Your task to perform on an android device: toggle location history Image 0: 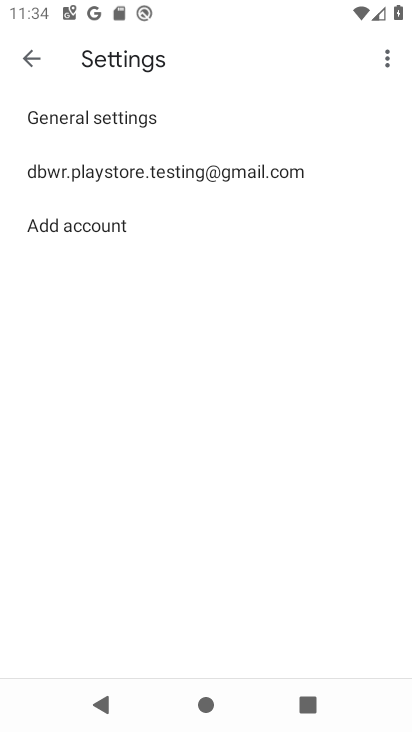
Step 0: press home button
Your task to perform on an android device: toggle location history Image 1: 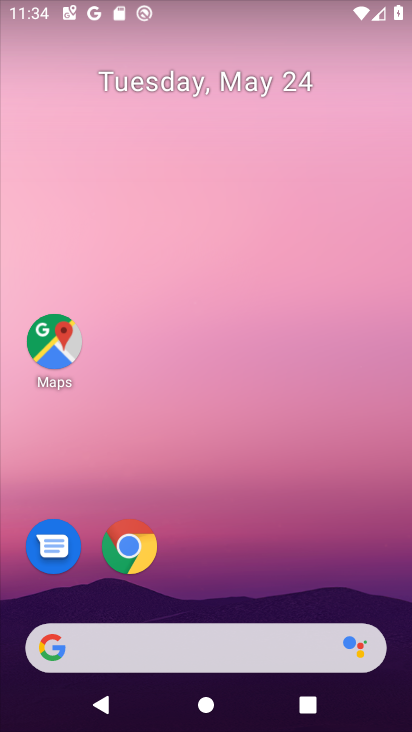
Step 1: drag from (196, 577) to (252, 15)
Your task to perform on an android device: toggle location history Image 2: 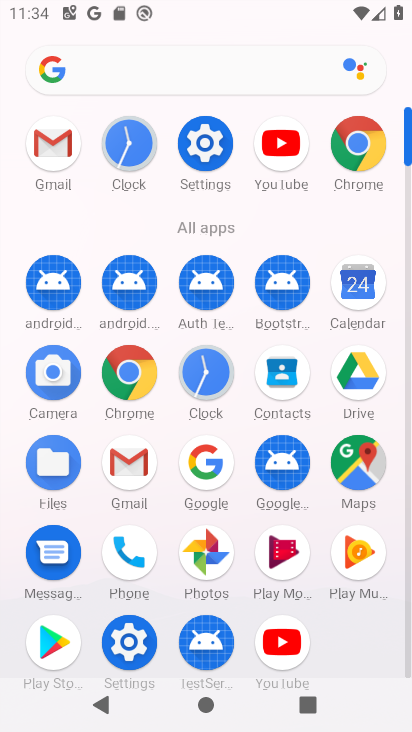
Step 2: click (129, 639)
Your task to perform on an android device: toggle location history Image 3: 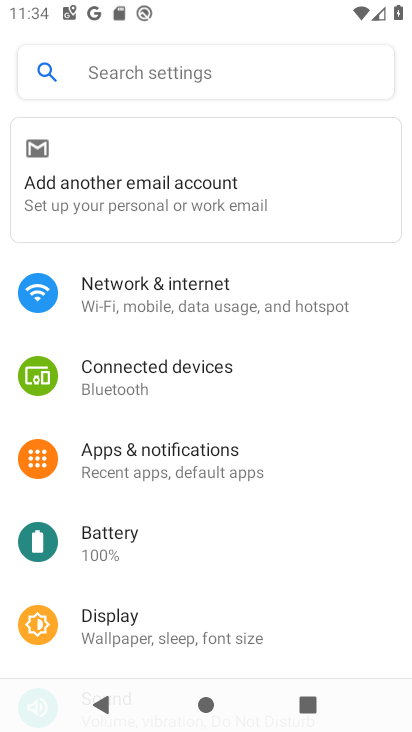
Step 3: drag from (206, 637) to (253, 244)
Your task to perform on an android device: toggle location history Image 4: 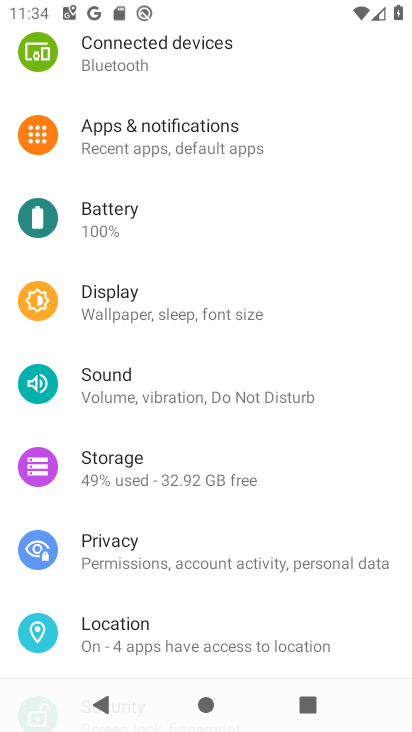
Step 4: drag from (172, 544) to (197, 396)
Your task to perform on an android device: toggle location history Image 5: 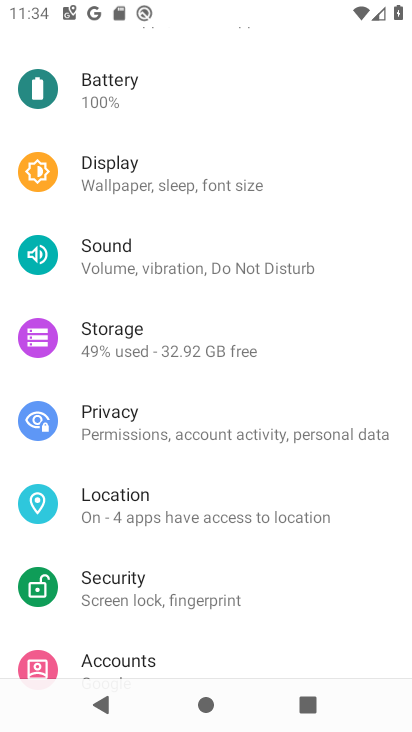
Step 5: click (189, 518)
Your task to perform on an android device: toggle location history Image 6: 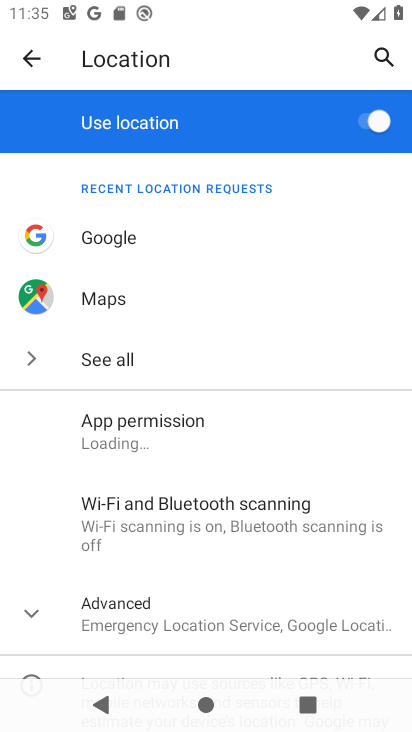
Step 6: drag from (194, 584) to (239, 394)
Your task to perform on an android device: toggle location history Image 7: 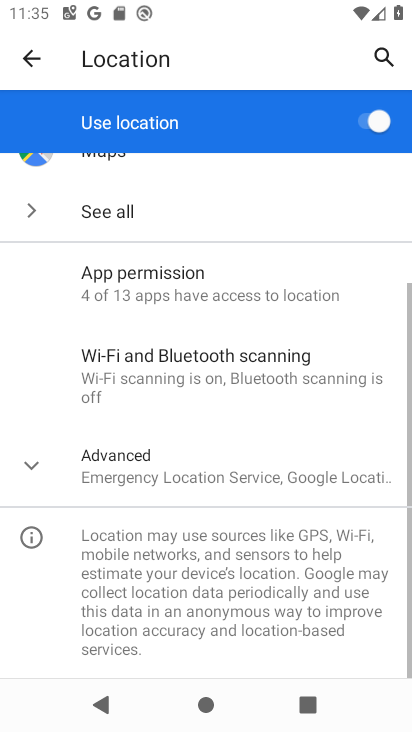
Step 7: click (207, 486)
Your task to perform on an android device: toggle location history Image 8: 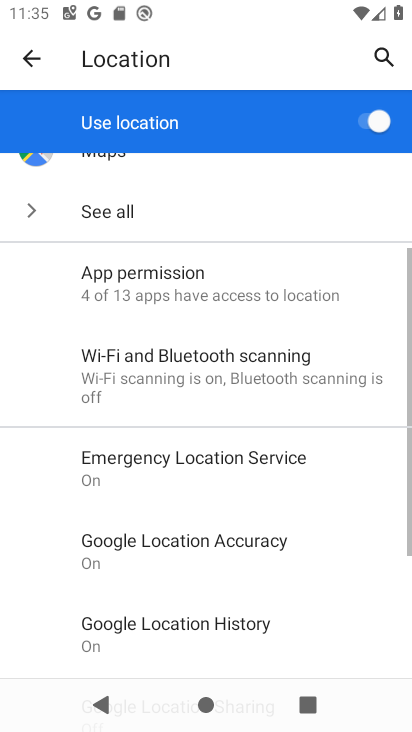
Step 8: drag from (236, 594) to (250, 425)
Your task to perform on an android device: toggle location history Image 9: 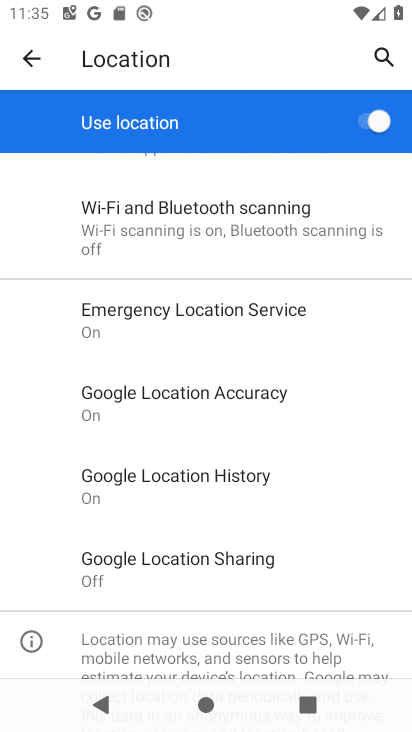
Step 9: click (224, 487)
Your task to perform on an android device: toggle location history Image 10: 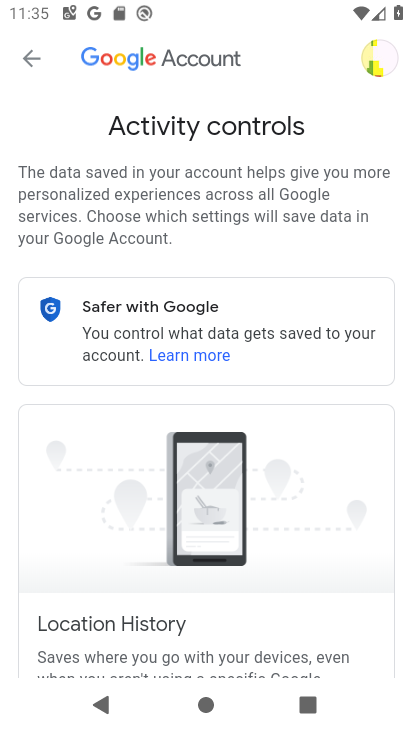
Step 10: drag from (219, 501) to (269, 187)
Your task to perform on an android device: toggle location history Image 11: 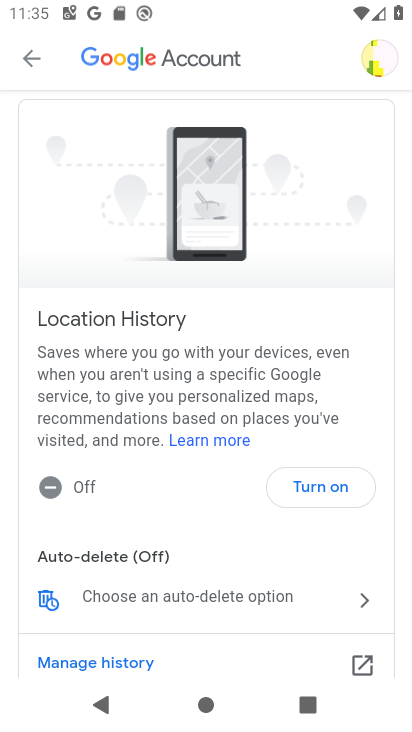
Step 11: click (336, 486)
Your task to perform on an android device: toggle location history Image 12: 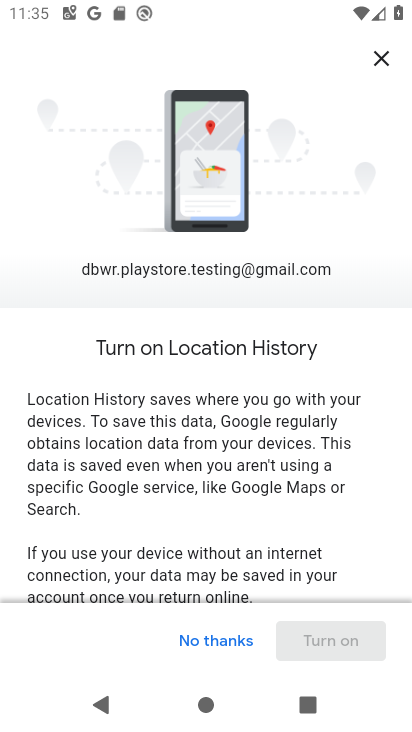
Step 12: drag from (261, 547) to (328, 165)
Your task to perform on an android device: toggle location history Image 13: 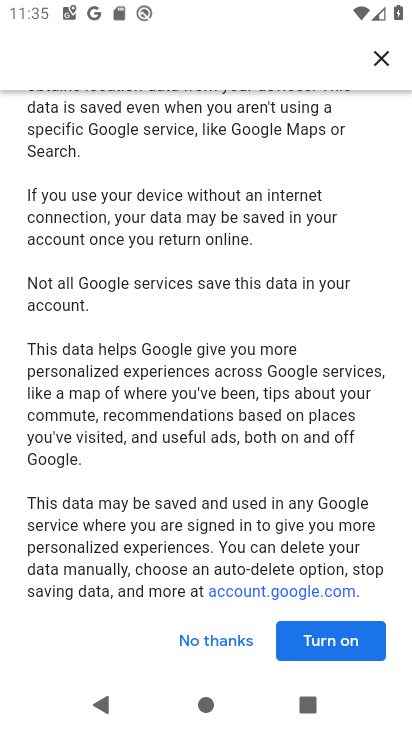
Step 13: drag from (317, 531) to (342, 327)
Your task to perform on an android device: toggle location history Image 14: 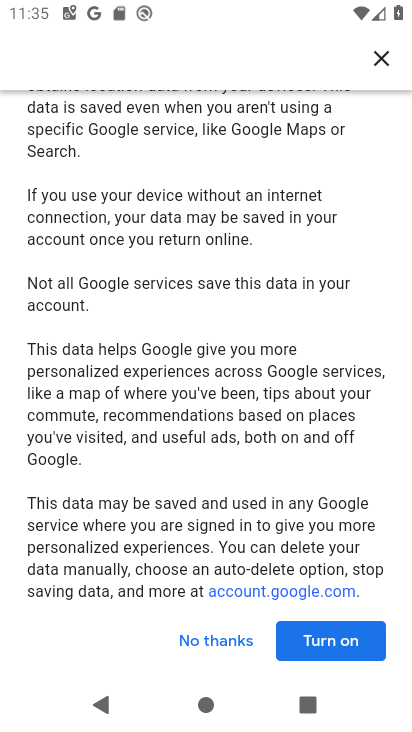
Step 14: click (344, 649)
Your task to perform on an android device: toggle location history Image 15: 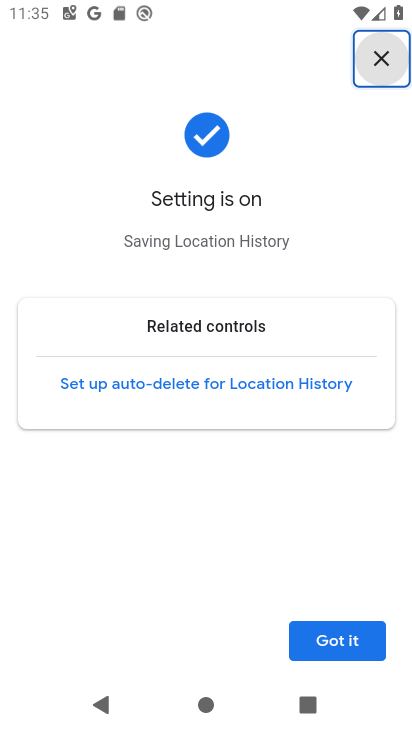
Step 15: click (336, 643)
Your task to perform on an android device: toggle location history Image 16: 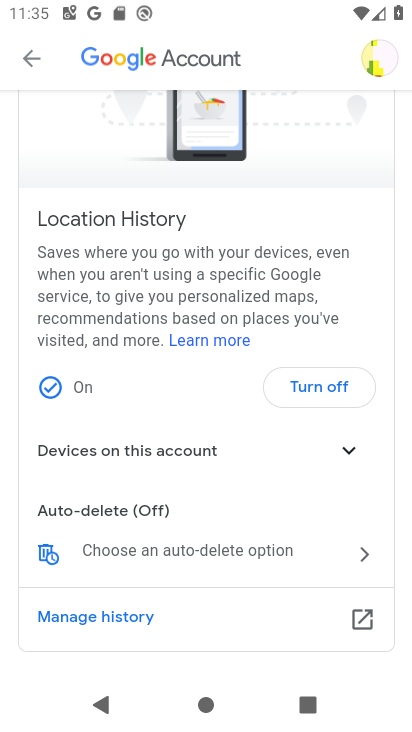
Step 16: task complete